Your task to perform on an android device: See recent photos Image 0: 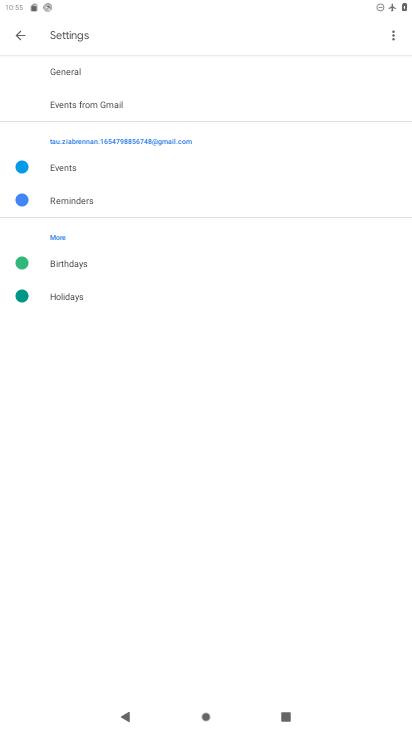
Step 0: press home button
Your task to perform on an android device: See recent photos Image 1: 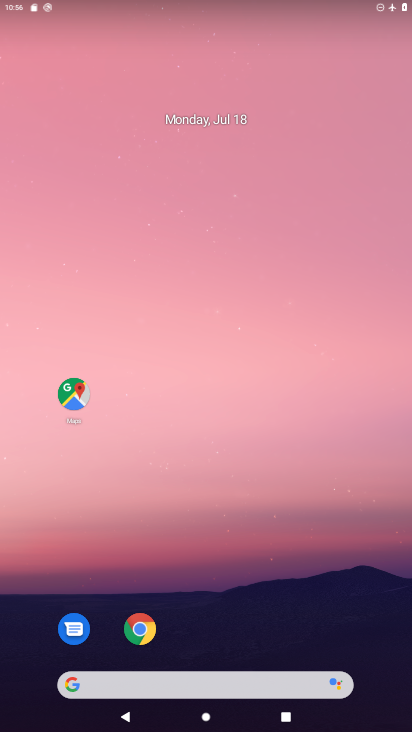
Step 1: drag from (274, 594) to (274, 136)
Your task to perform on an android device: See recent photos Image 2: 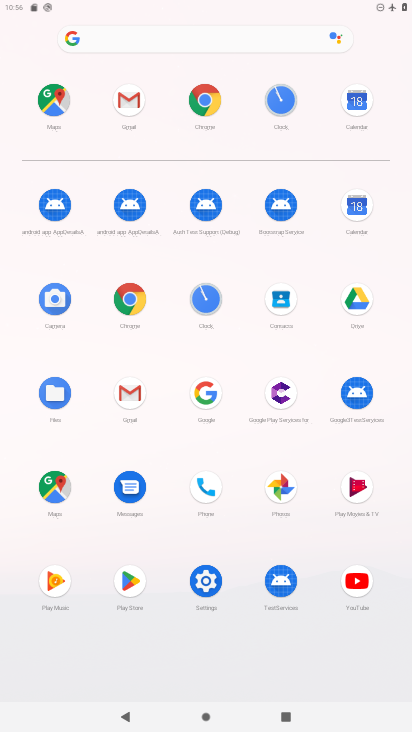
Step 2: click (290, 486)
Your task to perform on an android device: See recent photos Image 3: 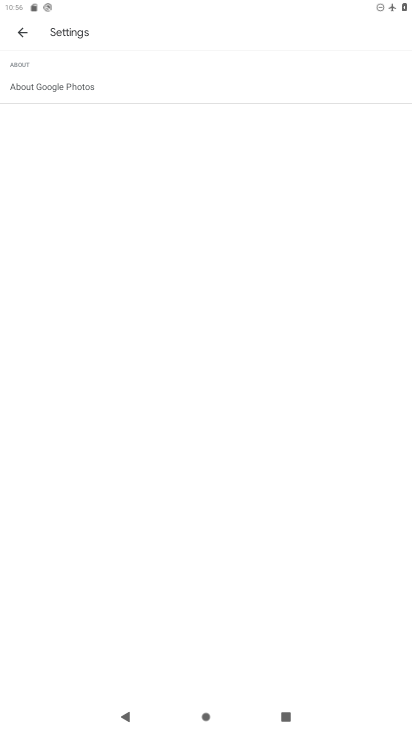
Step 3: click (20, 33)
Your task to perform on an android device: See recent photos Image 4: 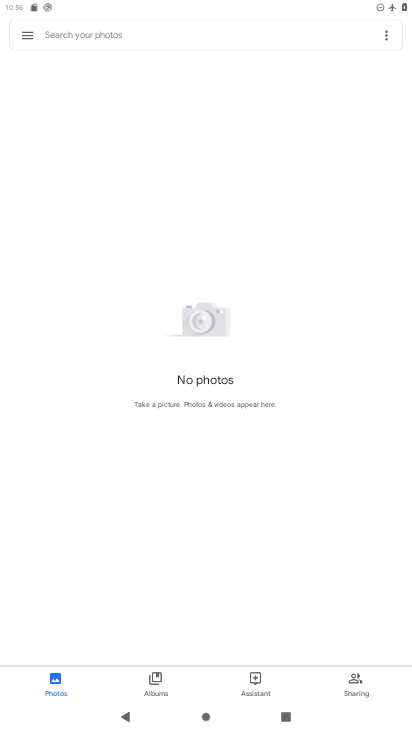
Step 4: task complete